Your task to perform on an android device: check out phone information Image 0: 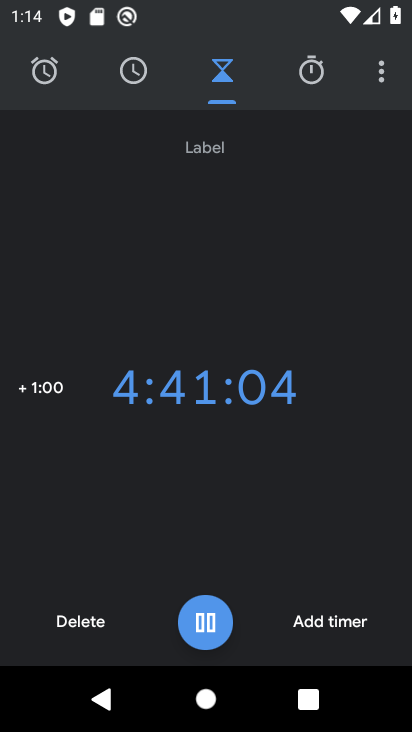
Step 0: press home button
Your task to perform on an android device: check out phone information Image 1: 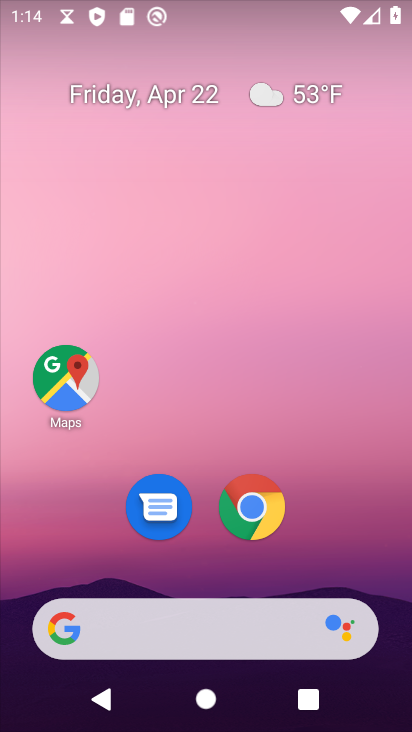
Step 1: drag from (334, 384) to (327, 90)
Your task to perform on an android device: check out phone information Image 2: 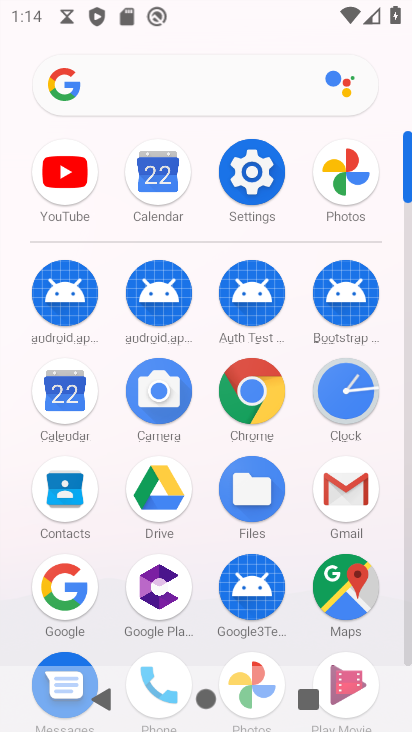
Step 2: drag from (207, 578) to (214, 425)
Your task to perform on an android device: check out phone information Image 3: 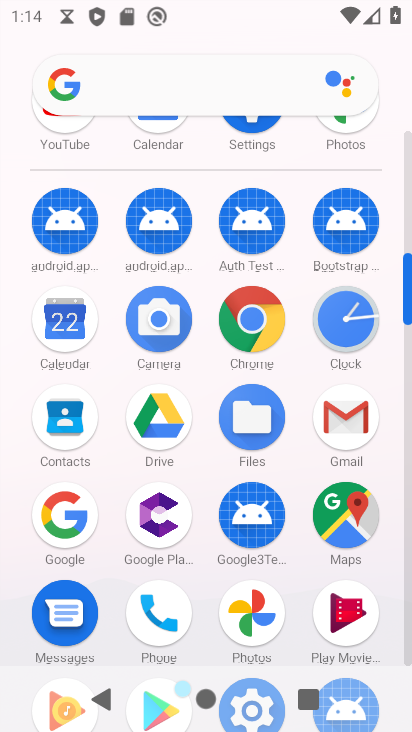
Step 3: click (169, 608)
Your task to perform on an android device: check out phone information Image 4: 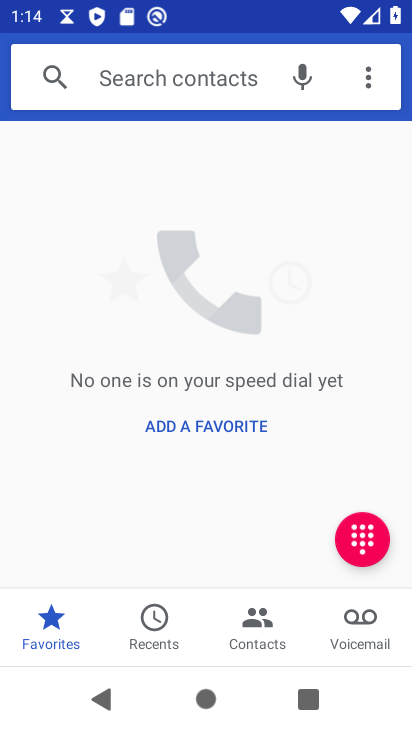
Step 4: click (367, 79)
Your task to perform on an android device: check out phone information Image 5: 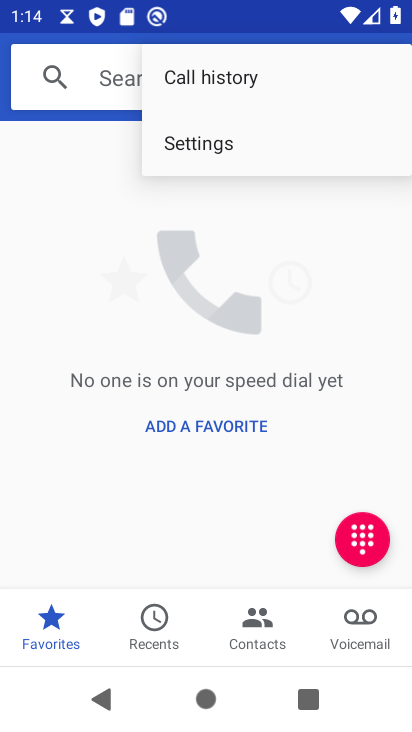
Step 5: click (168, 151)
Your task to perform on an android device: check out phone information Image 6: 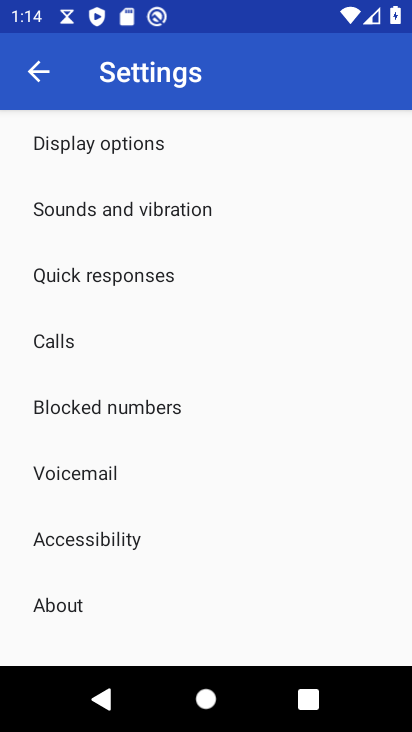
Step 6: click (62, 603)
Your task to perform on an android device: check out phone information Image 7: 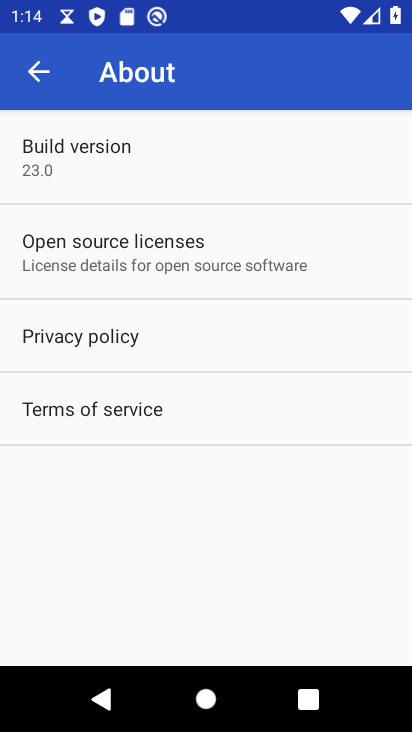
Step 7: task complete